Your task to perform on an android device: Is it going to rain tomorrow? Image 0: 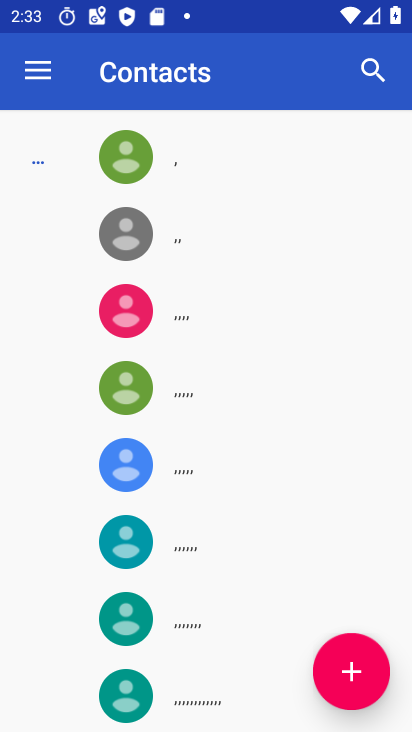
Step 0: press home button
Your task to perform on an android device: Is it going to rain tomorrow? Image 1: 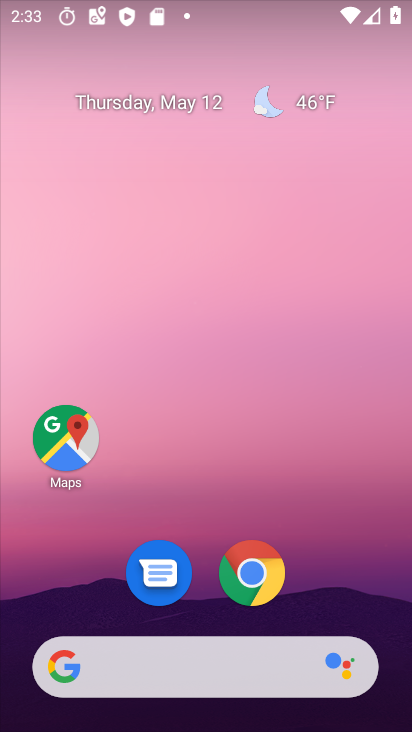
Step 1: click (318, 92)
Your task to perform on an android device: Is it going to rain tomorrow? Image 2: 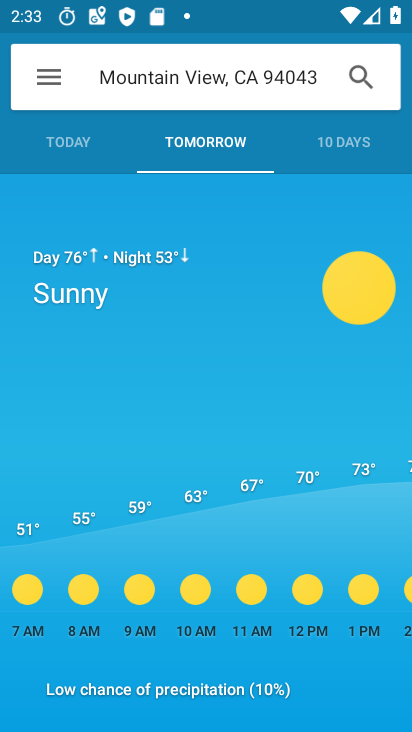
Step 2: task complete